Your task to perform on an android device: Open the phone app and click the voicemail tab. Image 0: 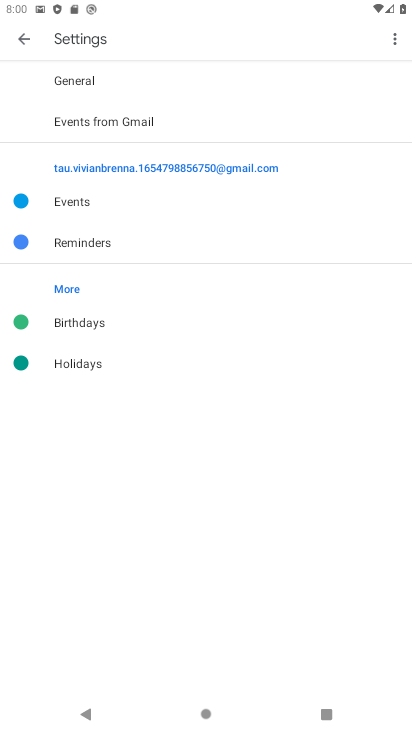
Step 0: press home button
Your task to perform on an android device: Open the phone app and click the voicemail tab. Image 1: 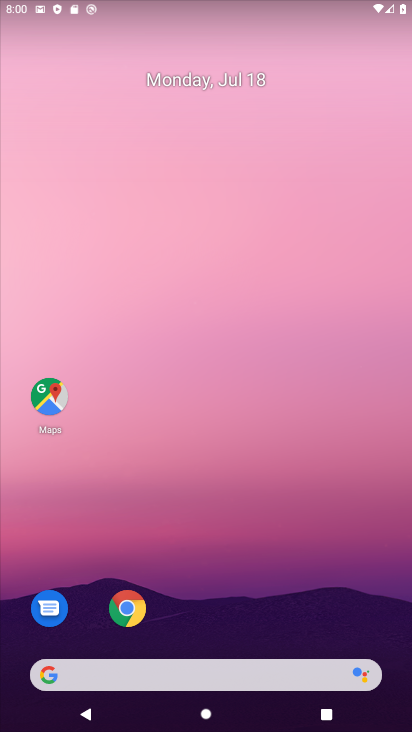
Step 1: drag from (240, 645) to (250, 228)
Your task to perform on an android device: Open the phone app and click the voicemail tab. Image 2: 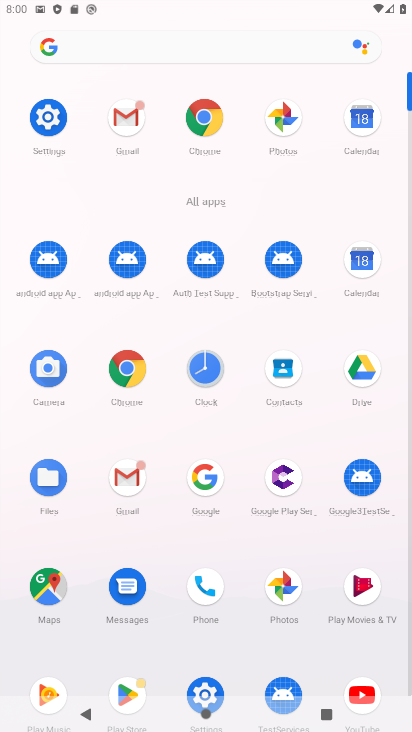
Step 2: click (207, 593)
Your task to perform on an android device: Open the phone app and click the voicemail tab. Image 3: 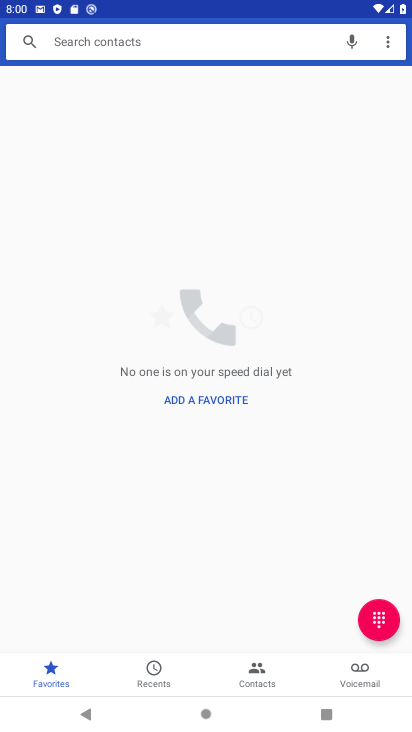
Step 3: click (374, 674)
Your task to perform on an android device: Open the phone app and click the voicemail tab. Image 4: 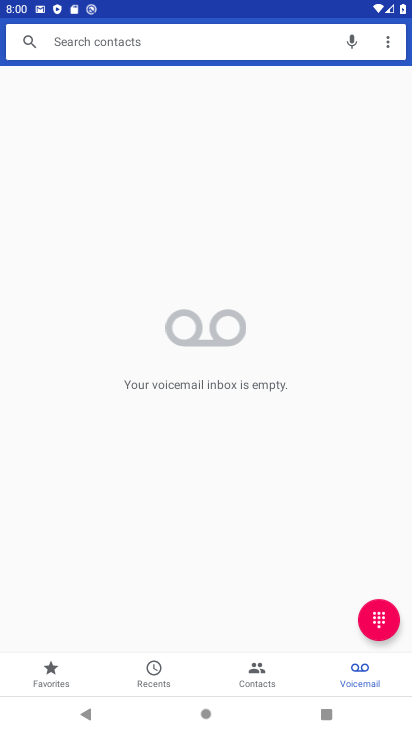
Step 4: task complete